Your task to perform on an android device: Open Google Chrome and click the shortcut for Amazon.com Image 0: 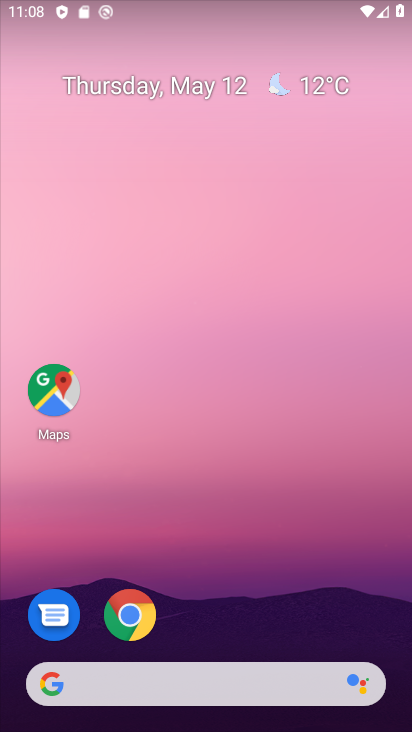
Step 0: click (125, 613)
Your task to perform on an android device: Open Google Chrome and click the shortcut for Amazon.com Image 1: 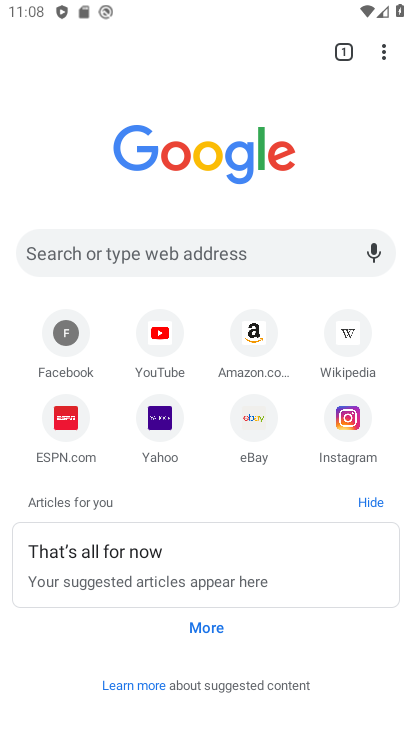
Step 1: click (236, 334)
Your task to perform on an android device: Open Google Chrome and click the shortcut for Amazon.com Image 2: 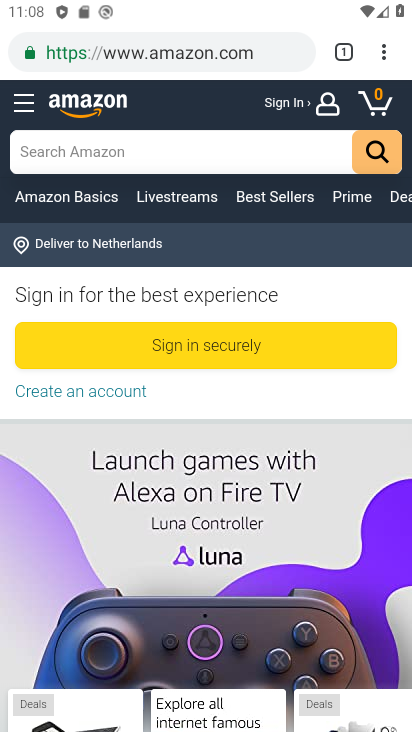
Step 2: task complete